Your task to perform on an android device: turn off improve location accuracy Image 0: 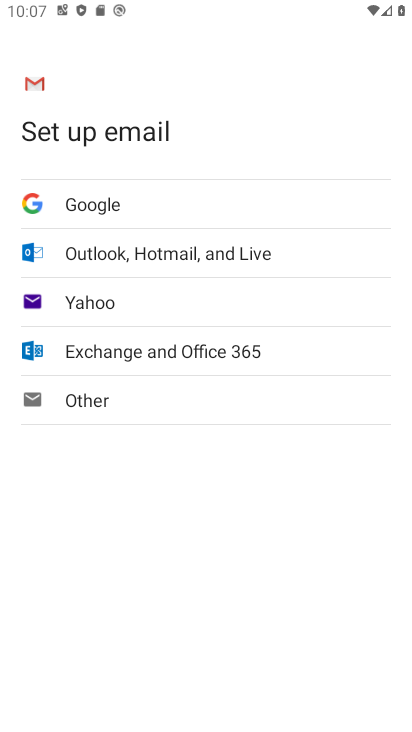
Step 0: press home button
Your task to perform on an android device: turn off improve location accuracy Image 1: 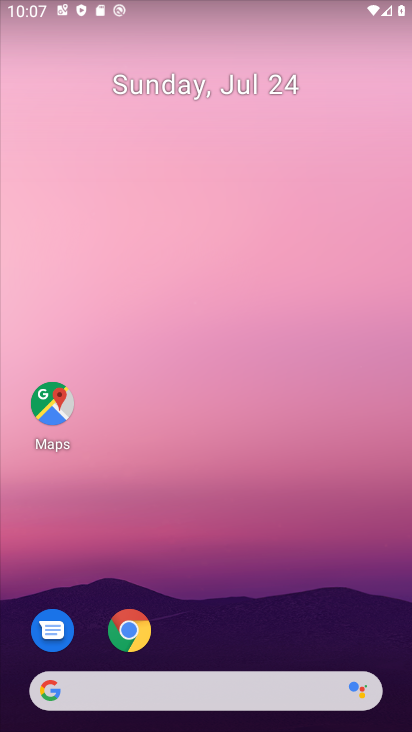
Step 1: drag from (242, 621) to (205, 19)
Your task to perform on an android device: turn off improve location accuracy Image 2: 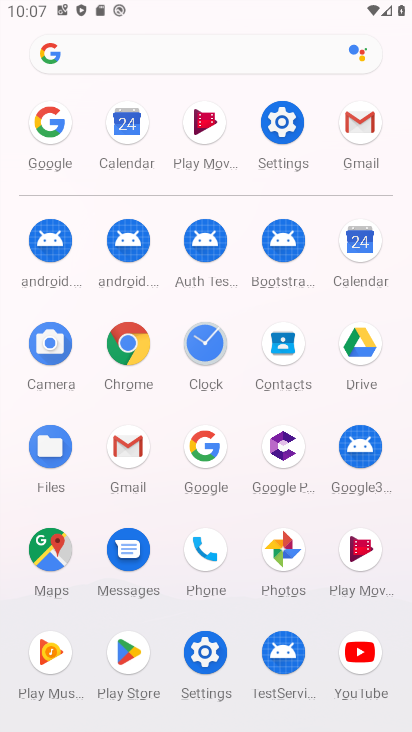
Step 2: click (278, 145)
Your task to perform on an android device: turn off improve location accuracy Image 3: 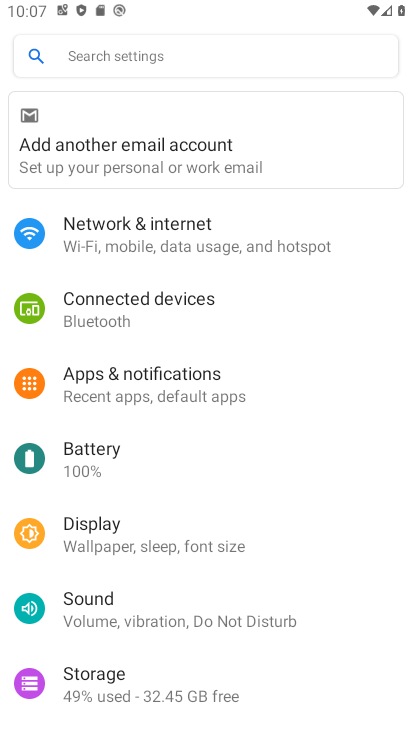
Step 3: drag from (163, 611) to (157, 231)
Your task to perform on an android device: turn off improve location accuracy Image 4: 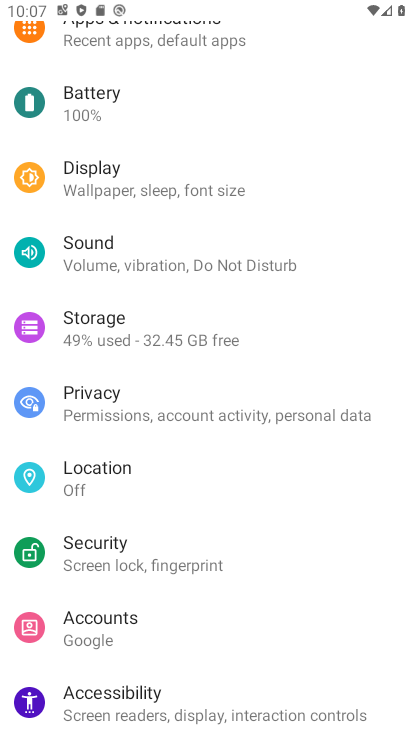
Step 4: click (109, 472)
Your task to perform on an android device: turn off improve location accuracy Image 5: 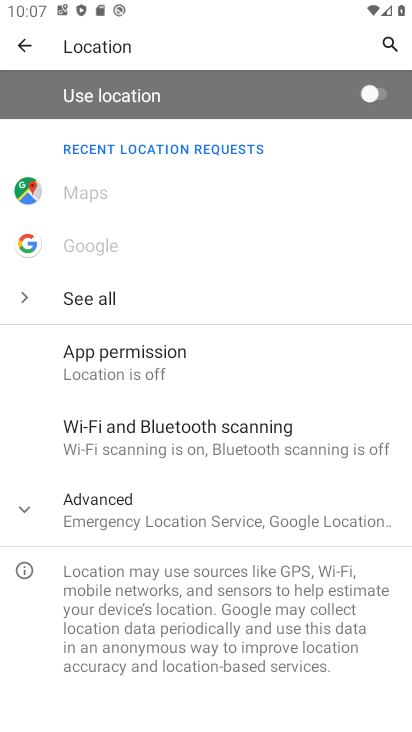
Step 5: click (157, 503)
Your task to perform on an android device: turn off improve location accuracy Image 6: 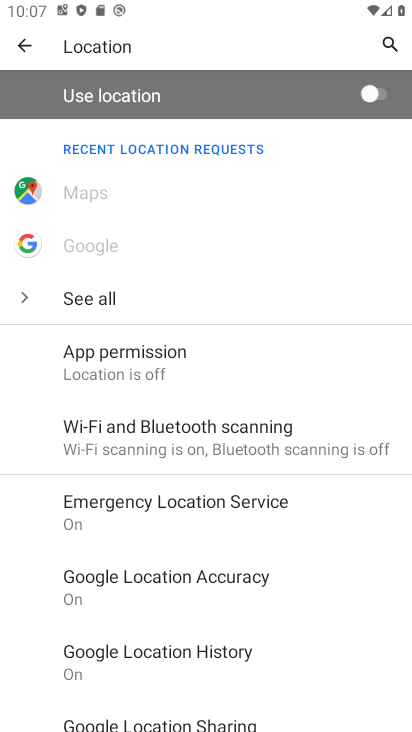
Step 6: click (196, 592)
Your task to perform on an android device: turn off improve location accuracy Image 7: 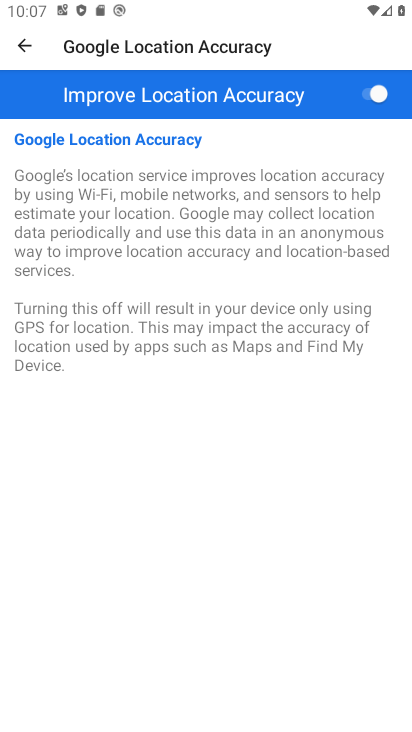
Step 7: click (357, 111)
Your task to perform on an android device: turn off improve location accuracy Image 8: 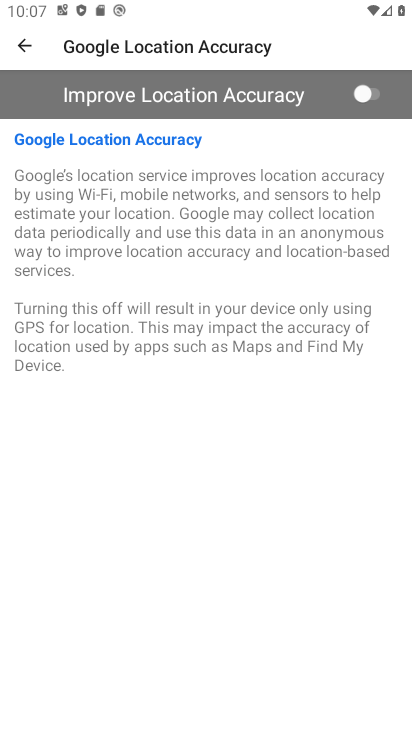
Step 8: task complete